Your task to perform on an android device: Open location settings Image 0: 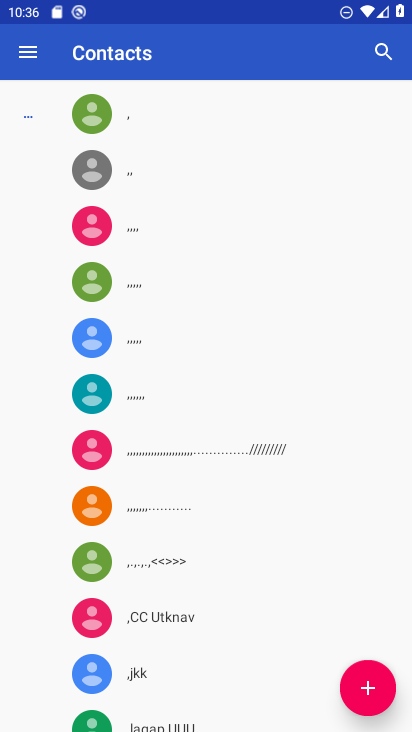
Step 0: press home button
Your task to perform on an android device: Open location settings Image 1: 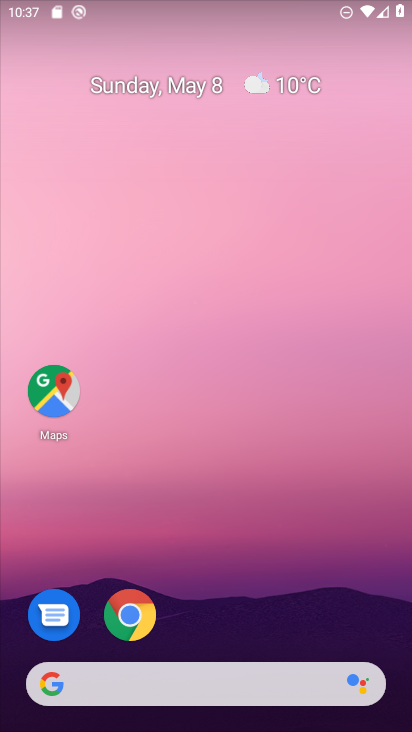
Step 1: drag from (238, 569) to (253, 89)
Your task to perform on an android device: Open location settings Image 2: 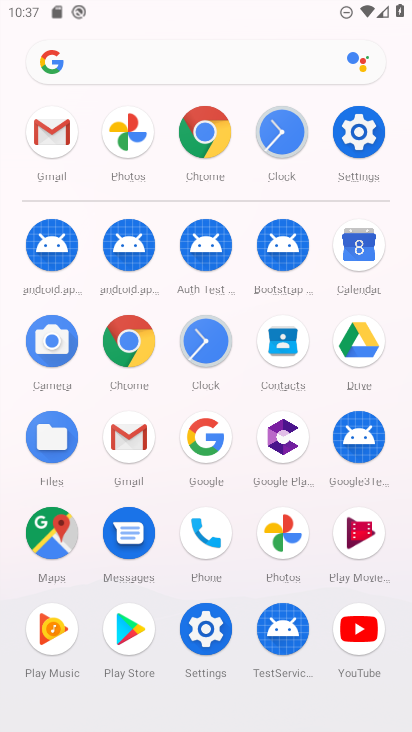
Step 2: click (350, 131)
Your task to perform on an android device: Open location settings Image 3: 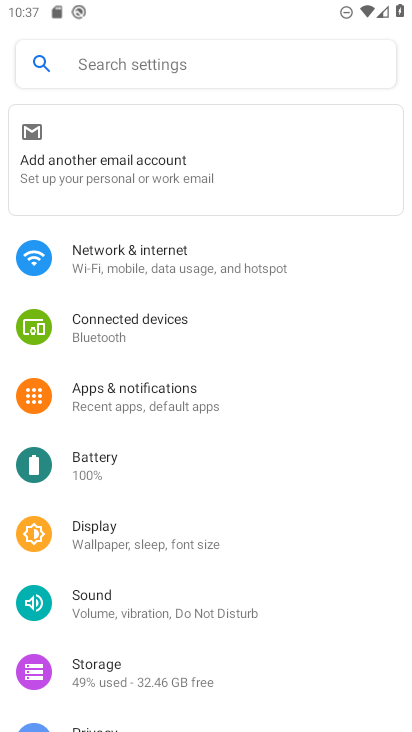
Step 3: drag from (142, 583) to (227, 74)
Your task to perform on an android device: Open location settings Image 4: 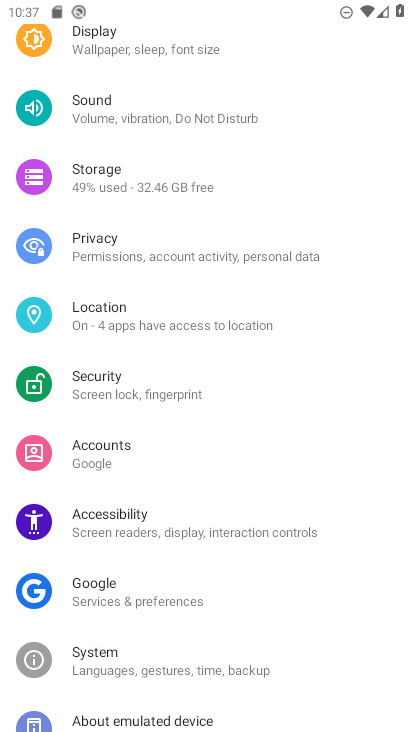
Step 4: click (174, 322)
Your task to perform on an android device: Open location settings Image 5: 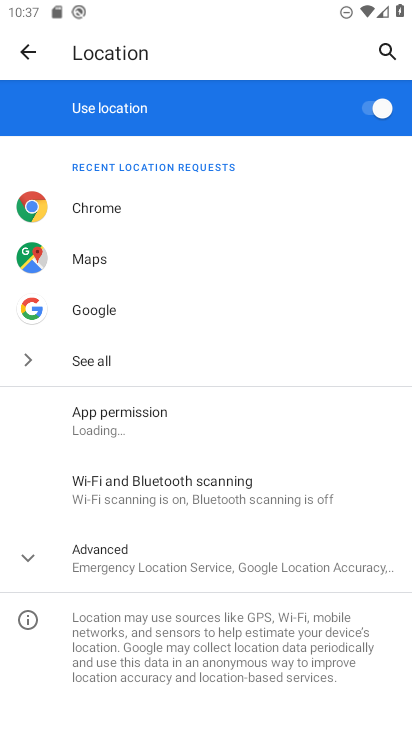
Step 5: task complete